Your task to perform on an android device: change alarm snooze length Image 0: 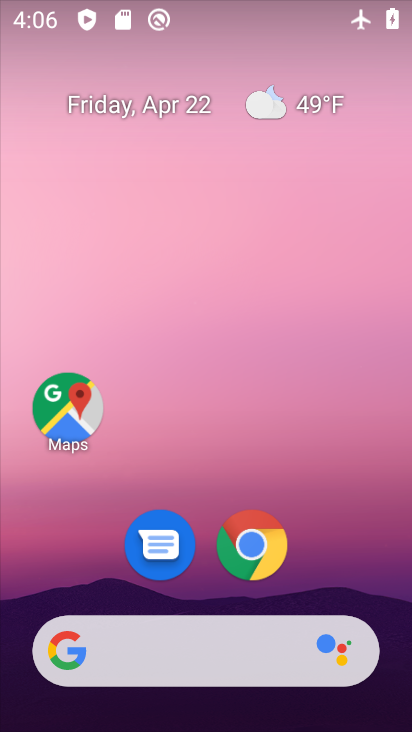
Step 0: drag from (403, 408) to (410, 277)
Your task to perform on an android device: change alarm snooze length Image 1: 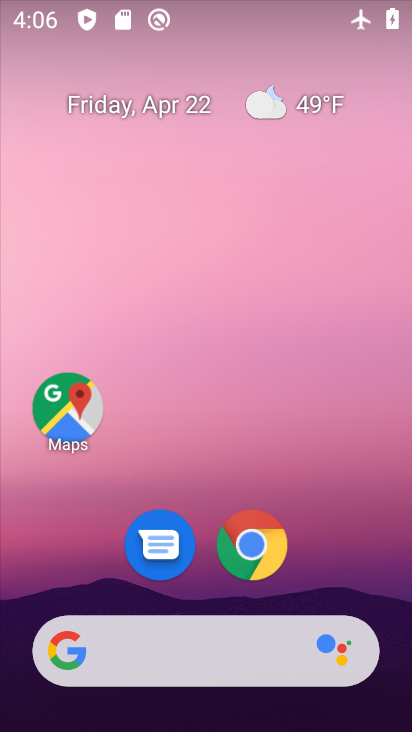
Step 1: drag from (372, 446) to (401, 138)
Your task to perform on an android device: change alarm snooze length Image 2: 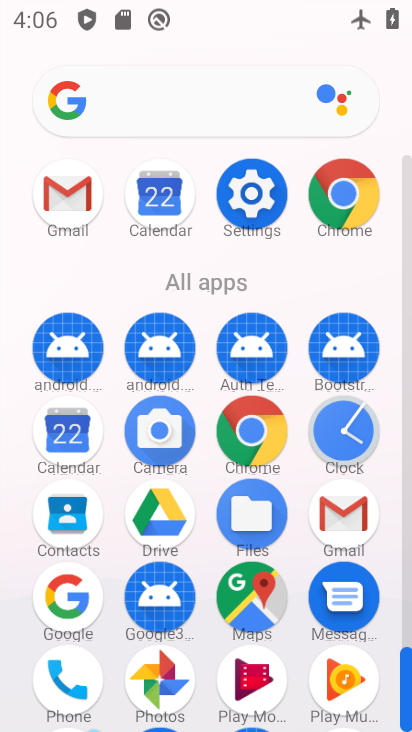
Step 2: click (313, 436)
Your task to perform on an android device: change alarm snooze length Image 3: 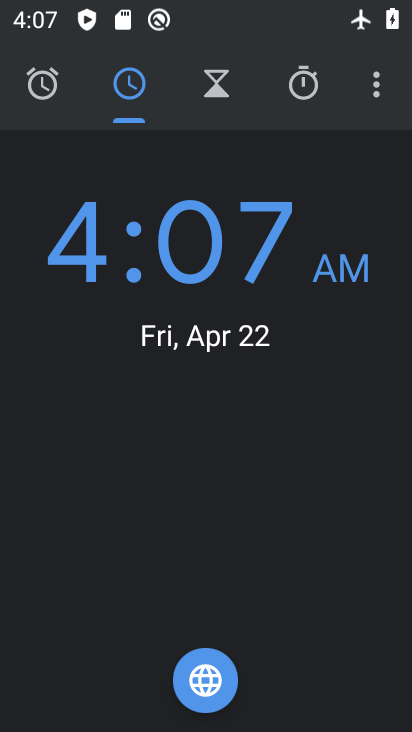
Step 3: click (378, 87)
Your task to perform on an android device: change alarm snooze length Image 4: 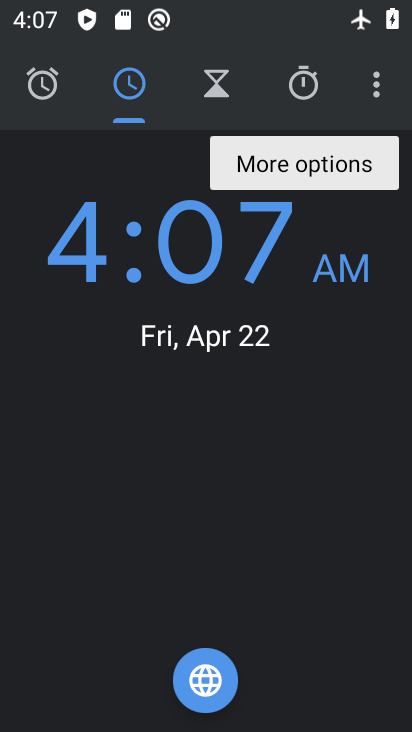
Step 4: click (377, 86)
Your task to perform on an android device: change alarm snooze length Image 5: 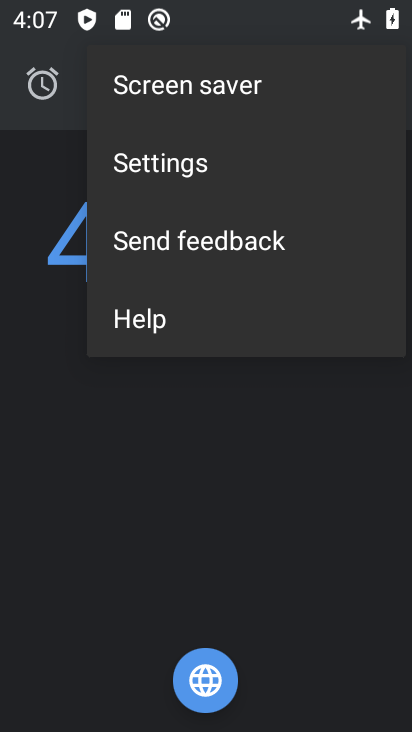
Step 5: click (126, 178)
Your task to perform on an android device: change alarm snooze length Image 6: 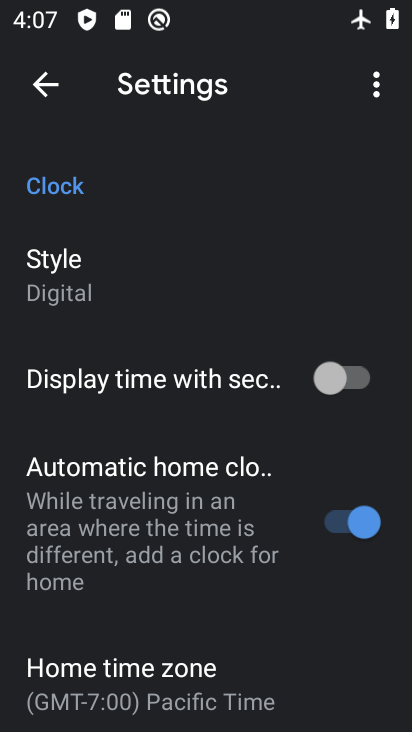
Step 6: drag from (241, 306) to (222, 245)
Your task to perform on an android device: change alarm snooze length Image 7: 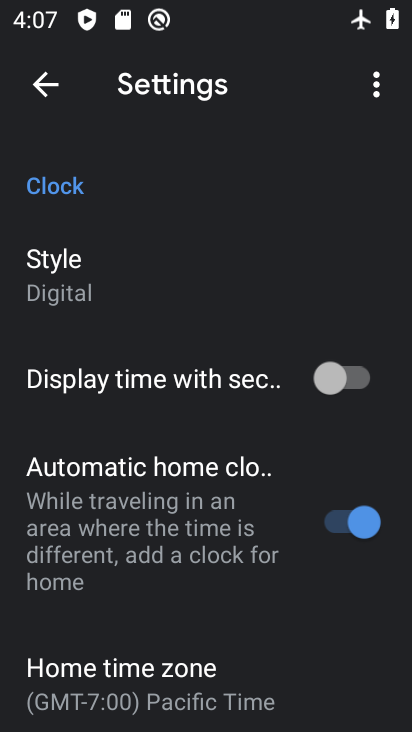
Step 7: drag from (263, 618) to (208, 248)
Your task to perform on an android device: change alarm snooze length Image 8: 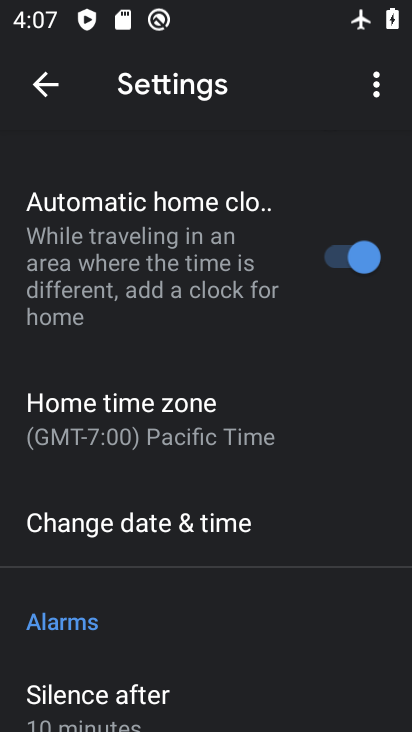
Step 8: drag from (269, 513) to (203, 184)
Your task to perform on an android device: change alarm snooze length Image 9: 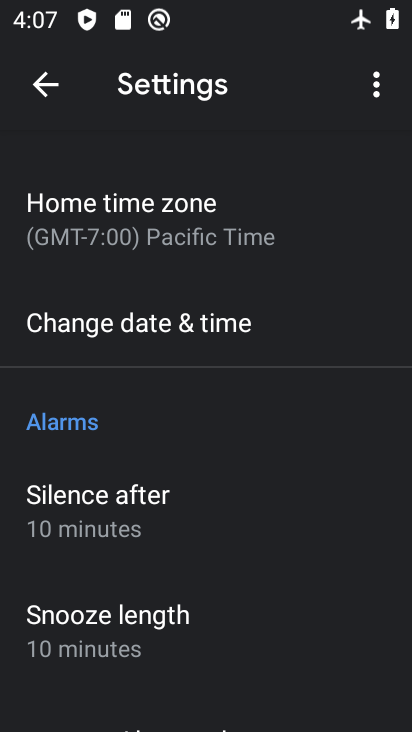
Step 9: click (109, 638)
Your task to perform on an android device: change alarm snooze length Image 10: 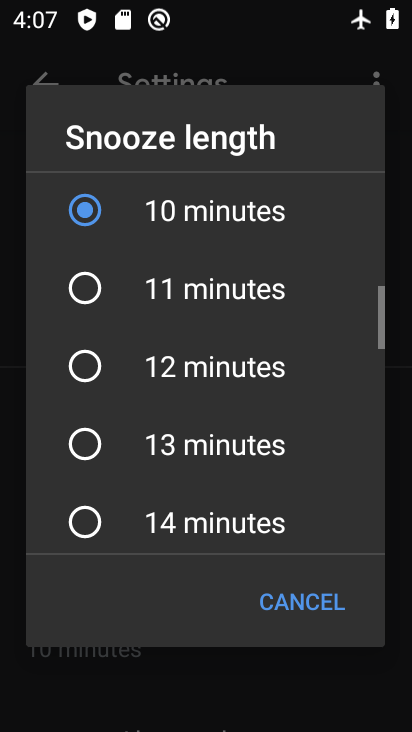
Step 10: click (96, 383)
Your task to perform on an android device: change alarm snooze length Image 11: 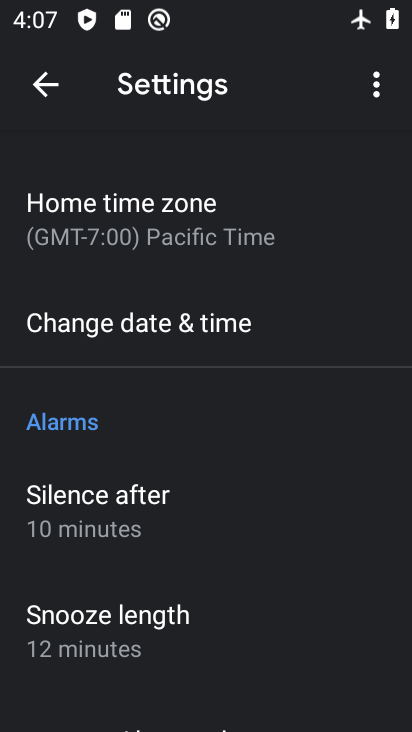
Step 11: task complete